Your task to perform on an android device: Open the calendar and show me this week's events Image 0: 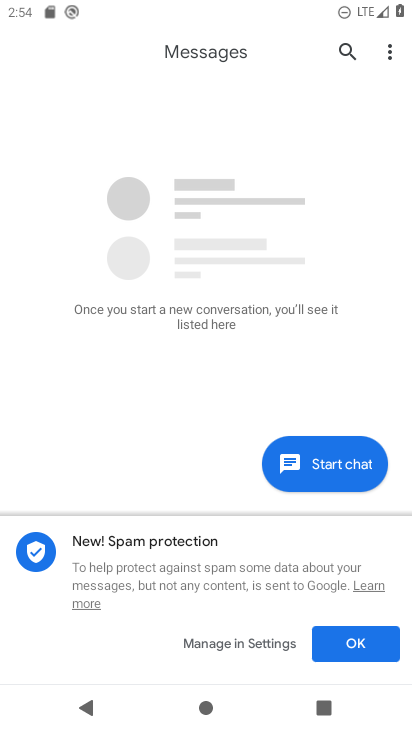
Step 0: press home button
Your task to perform on an android device: Open the calendar and show me this week's events Image 1: 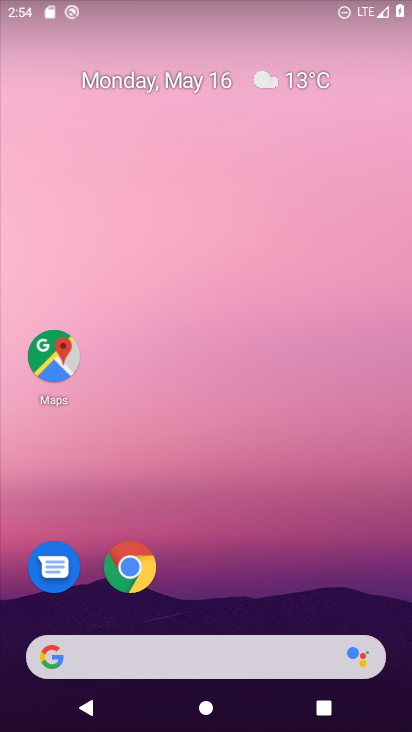
Step 1: drag from (295, 573) to (221, 123)
Your task to perform on an android device: Open the calendar and show me this week's events Image 2: 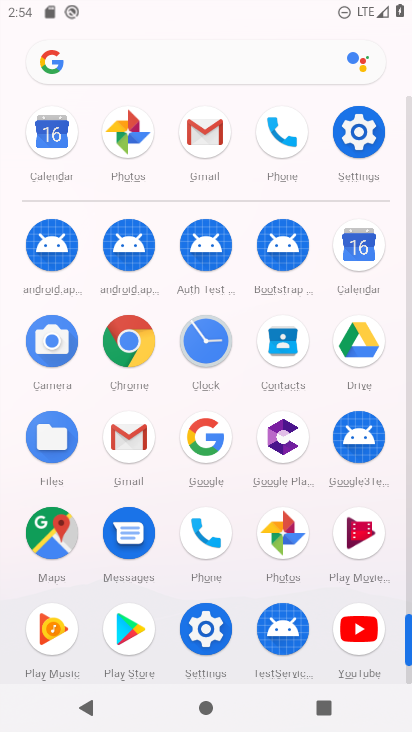
Step 2: click (356, 247)
Your task to perform on an android device: Open the calendar and show me this week's events Image 3: 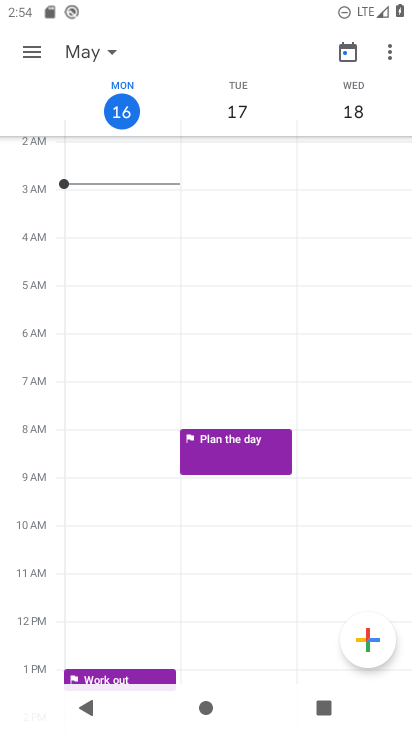
Step 3: click (33, 52)
Your task to perform on an android device: Open the calendar and show me this week's events Image 4: 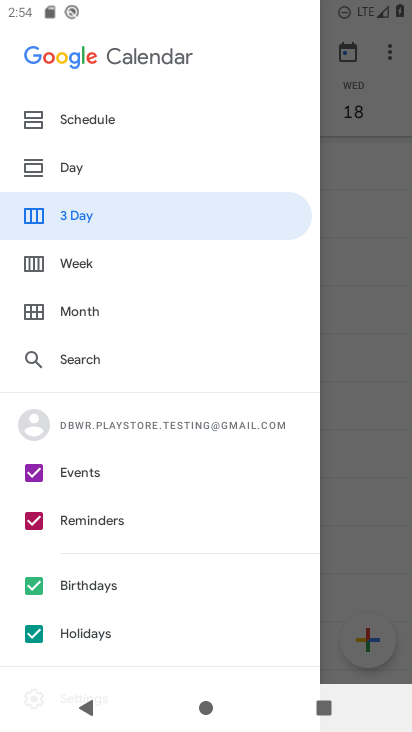
Step 4: click (95, 253)
Your task to perform on an android device: Open the calendar and show me this week's events Image 5: 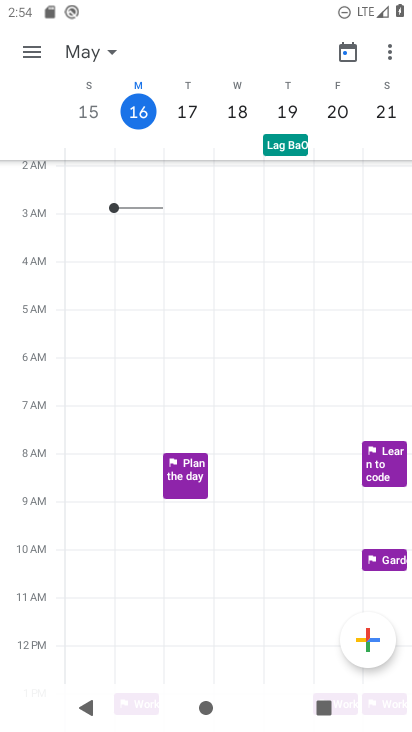
Step 5: task complete